Your task to perform on an android device: delete browsing data in the chrome app Image 0: 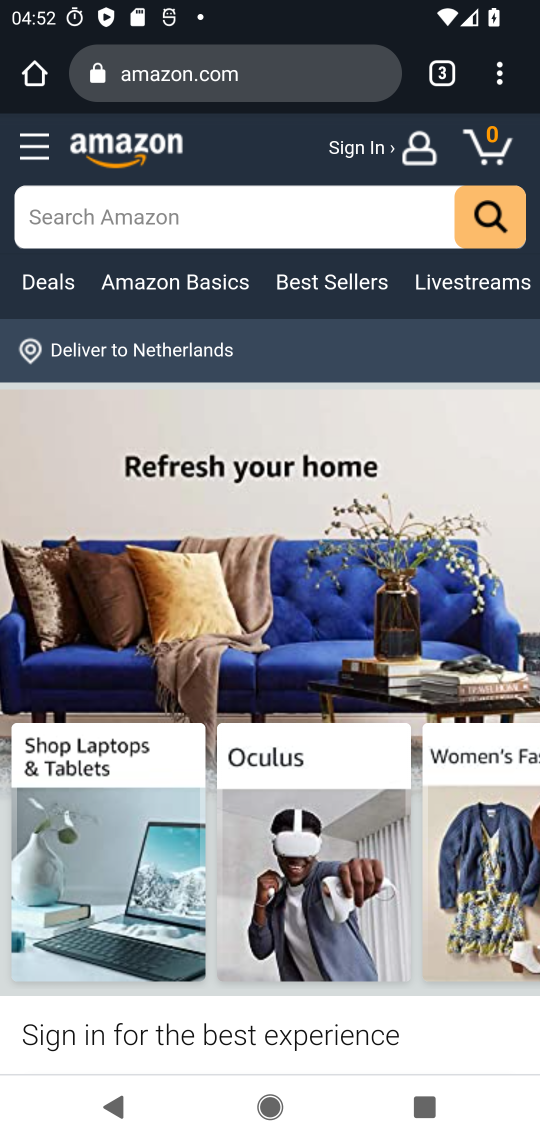
Step 0: press home button
Your task to perform on an android device: delete browsing data in the chrome app Image 1: 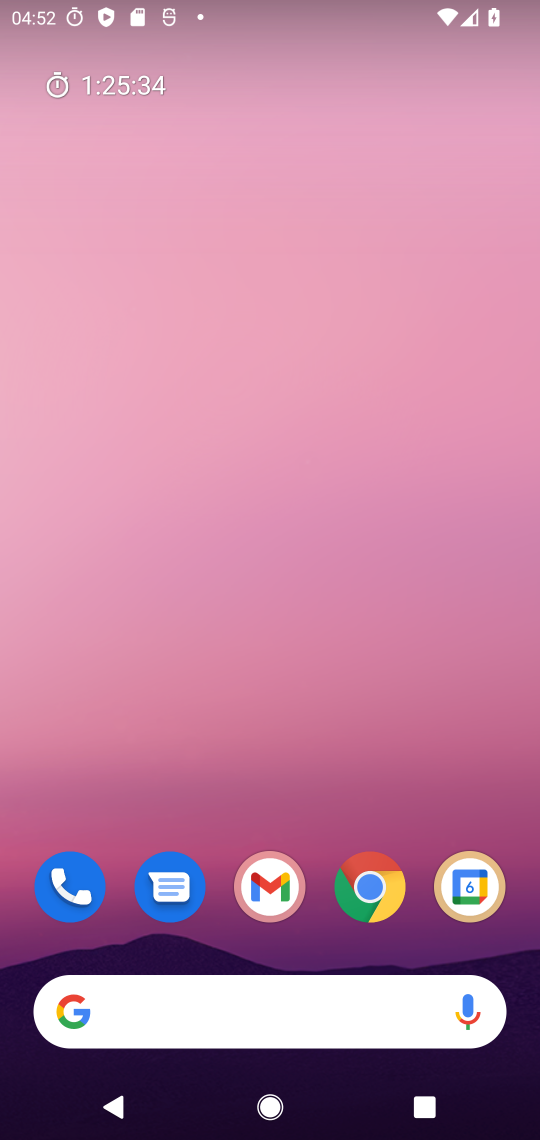
Step 1: drag from (437, 714) to (445, 260)
Your task to perform on an android device: delete browsing data in the chrome app Image 2: 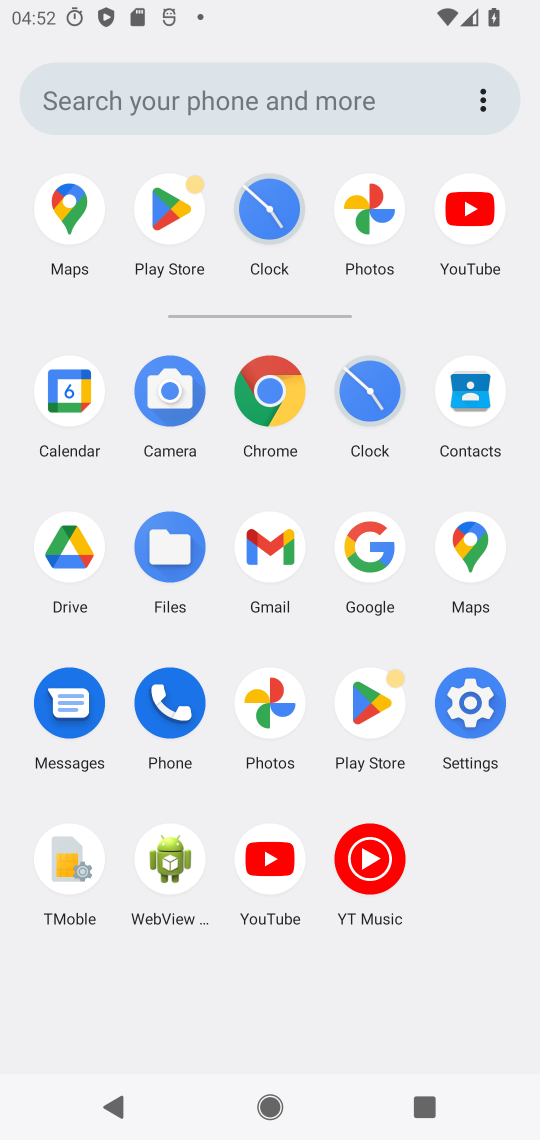
Step 2: click (272, 379)
Your task to perform on an android device: delete browsing data in the chrome app Image 3: 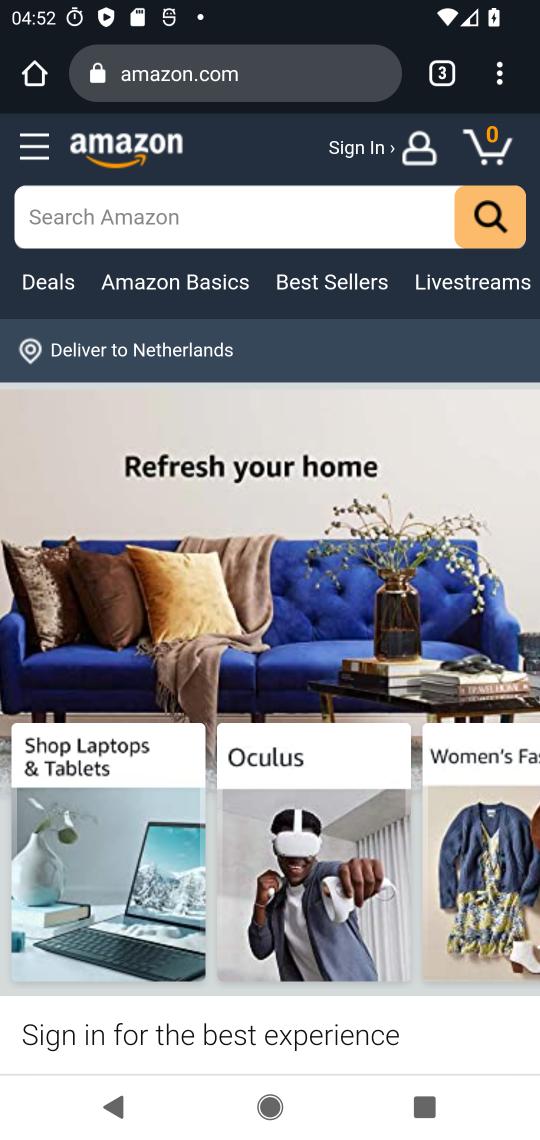
Step 3: click (499, 78)
Your task to perform on an android device: delete browsing data in the chrome app Image 4: 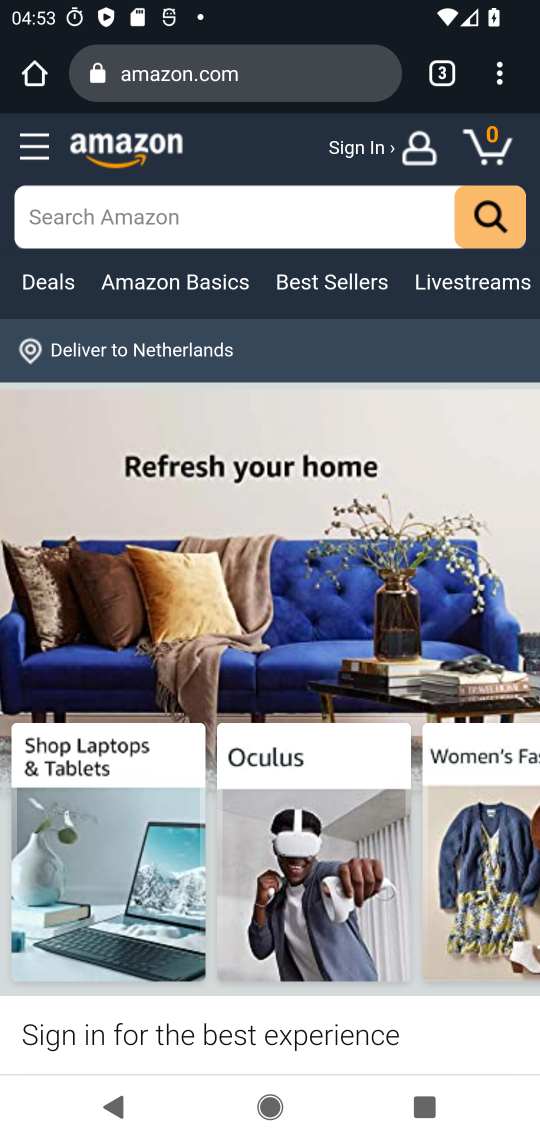
Step 4: click (503, 83)
Your task to perform on an android device: delete browsing data in the chrome app Image 5: 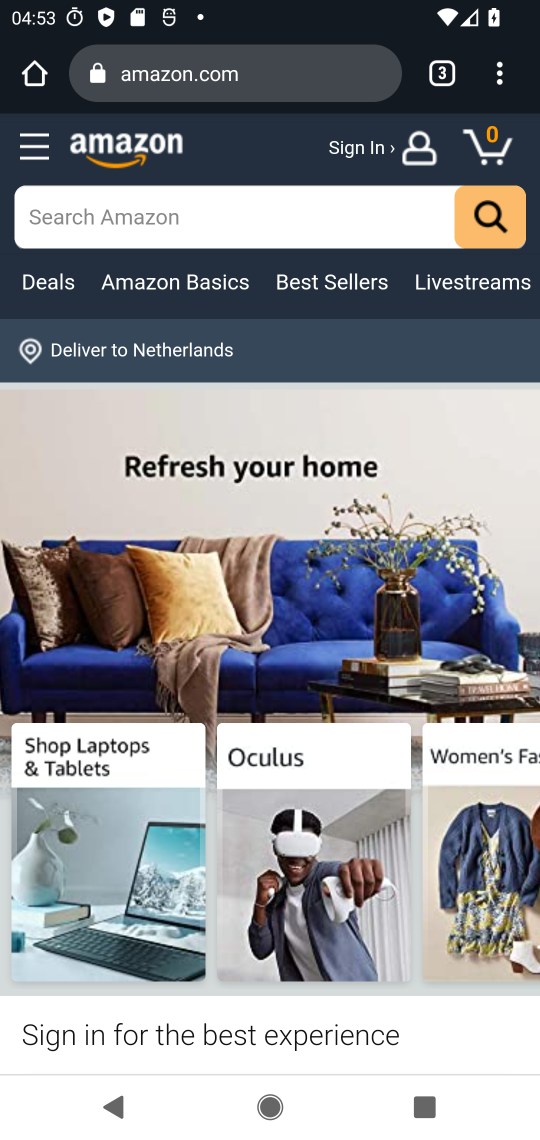
Step 5: click (495, 66)
Your task to perform on an android device: delete browsing data in the chrome app Image 6: 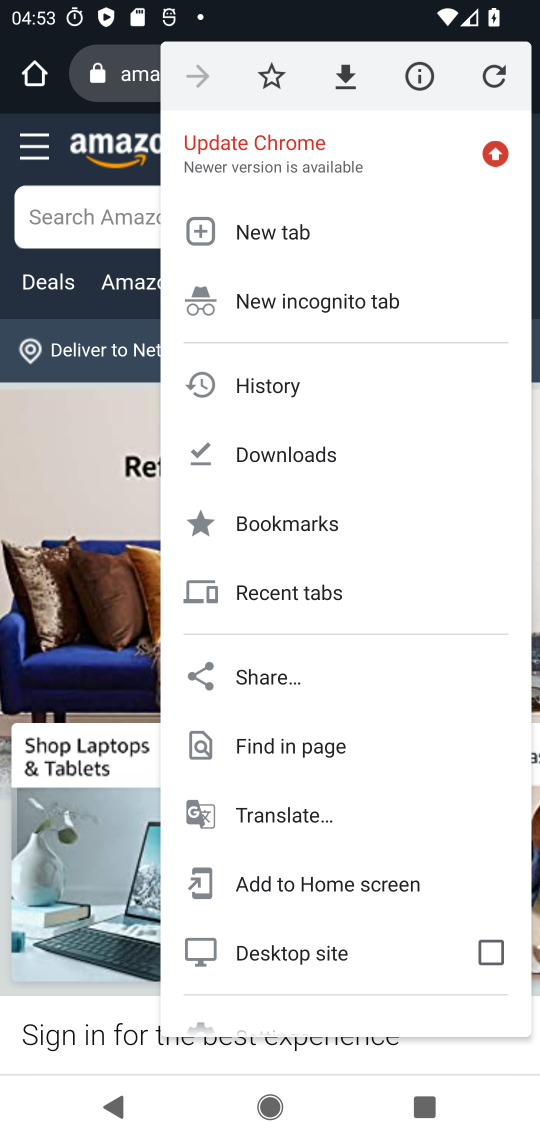
Step 6: drag from (428, 673) to (416, 496)
Your task to perform on an android device: delete browsing data in the chrome app Image 7: 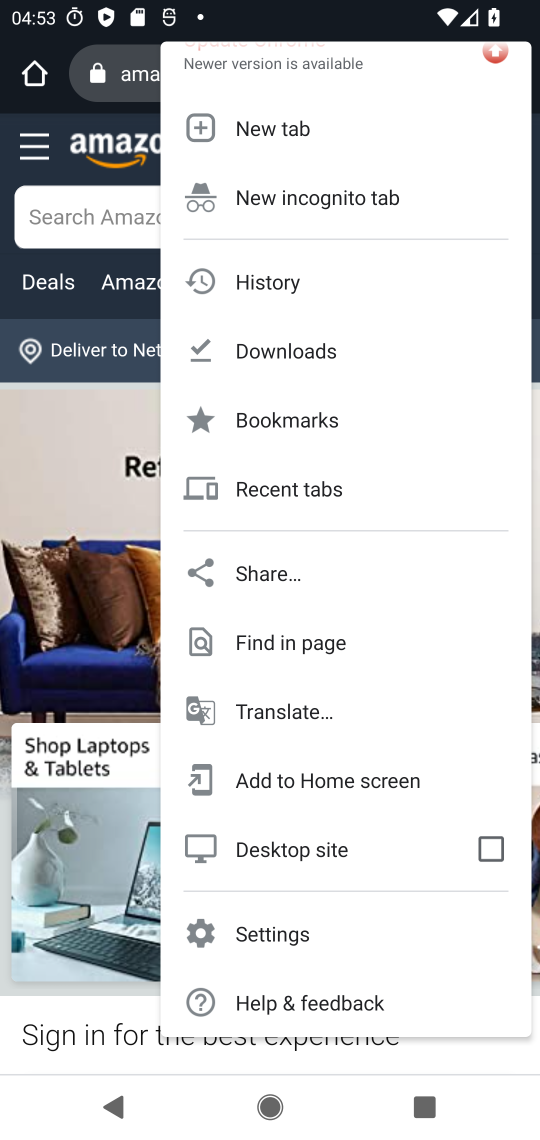
Step 7: drag from (419, 676) to (428, 533)
Your task to perform on an android device: delete browsing data in the chrome app Image 8: 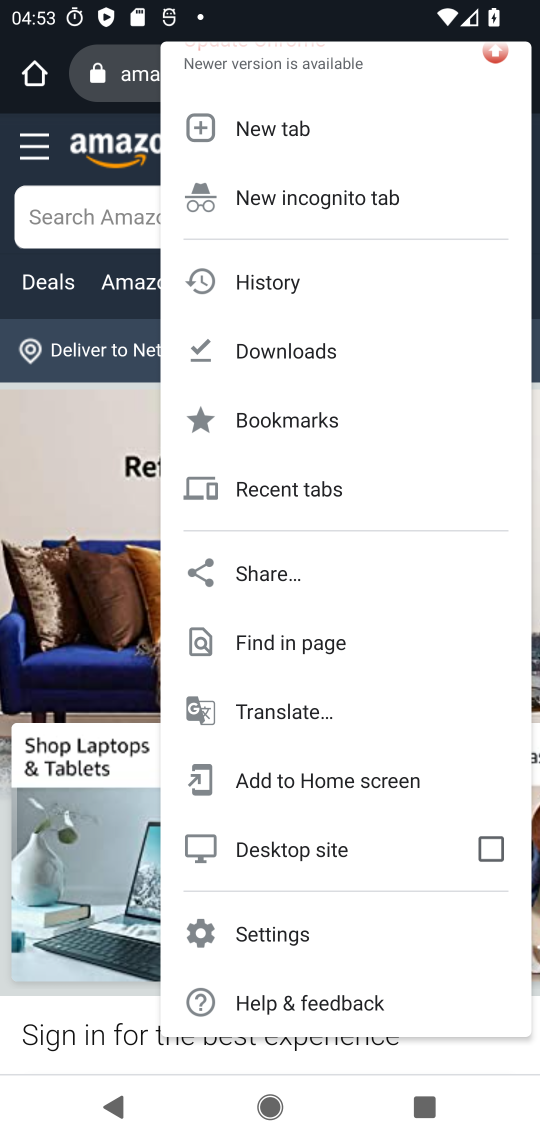
Step 8: click (312, 924)
Your task to perform on an android device: delete browsing data in the chrome app Image 9: 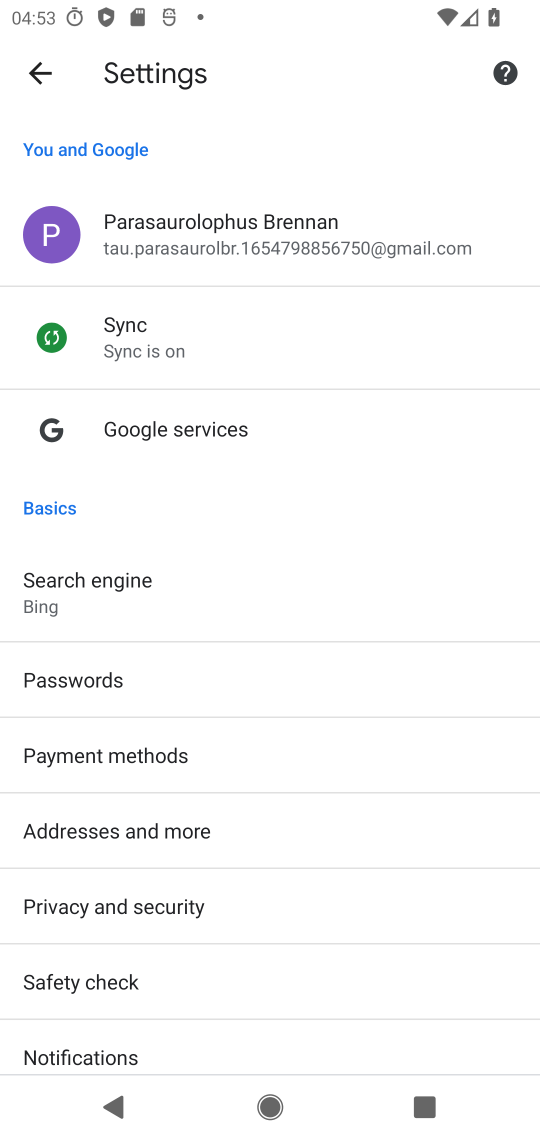
Step 9: drag from (356, 776) to (357, 584)
Your task to perform on an android device: delete browsing data in the chrome app Image 10: 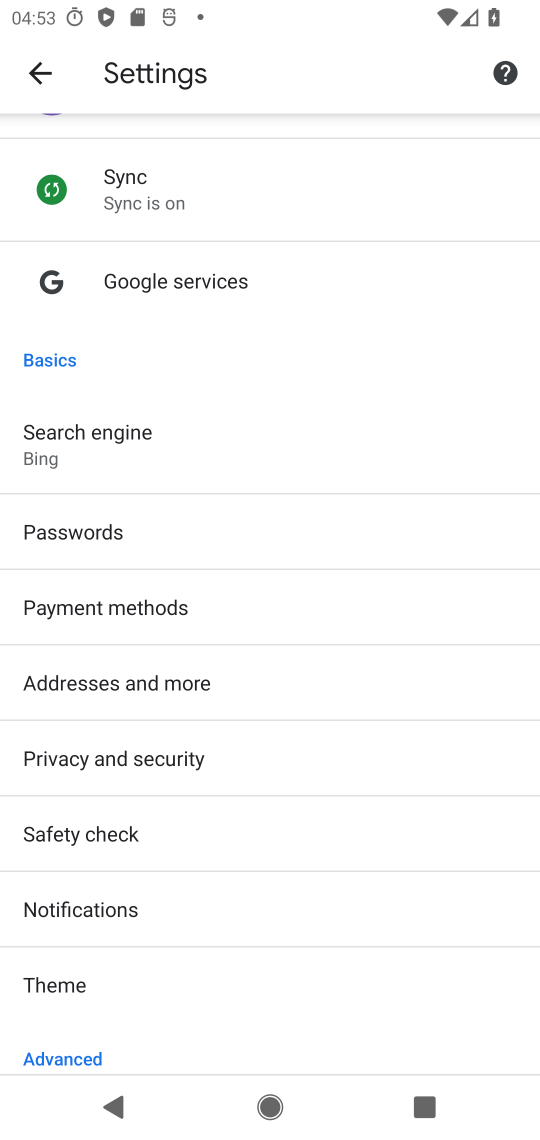
Step 10: drag from (428, 835) to (421, 574)
Your task to perform on an android device: delete browsing data in the chrome app Image 11: 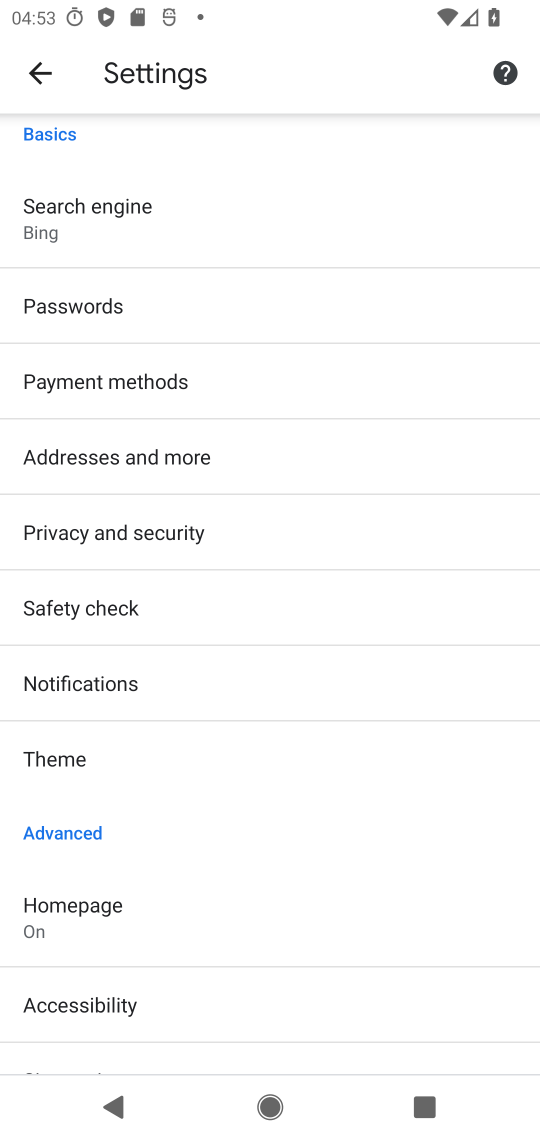
Step 11: drag from (437, 778) to (459, 555)
Your task to perform on an android device: delete browsing data in the chrome app Image 12: 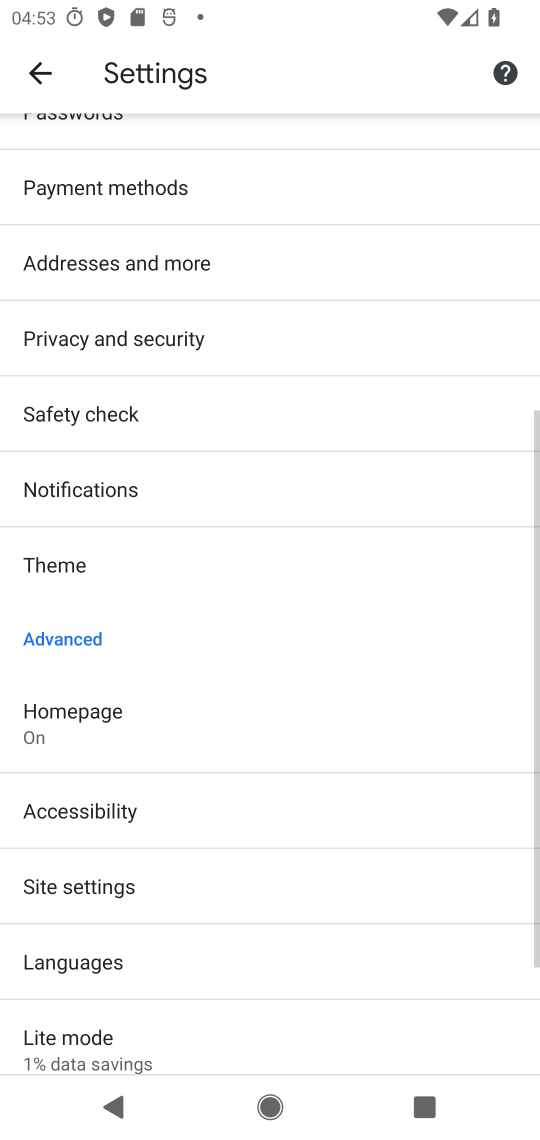
Step 12: drag from (451, 725) to (456, 498)
Your task to perform on an android device: delete browsing data in the chrome app Image 13: 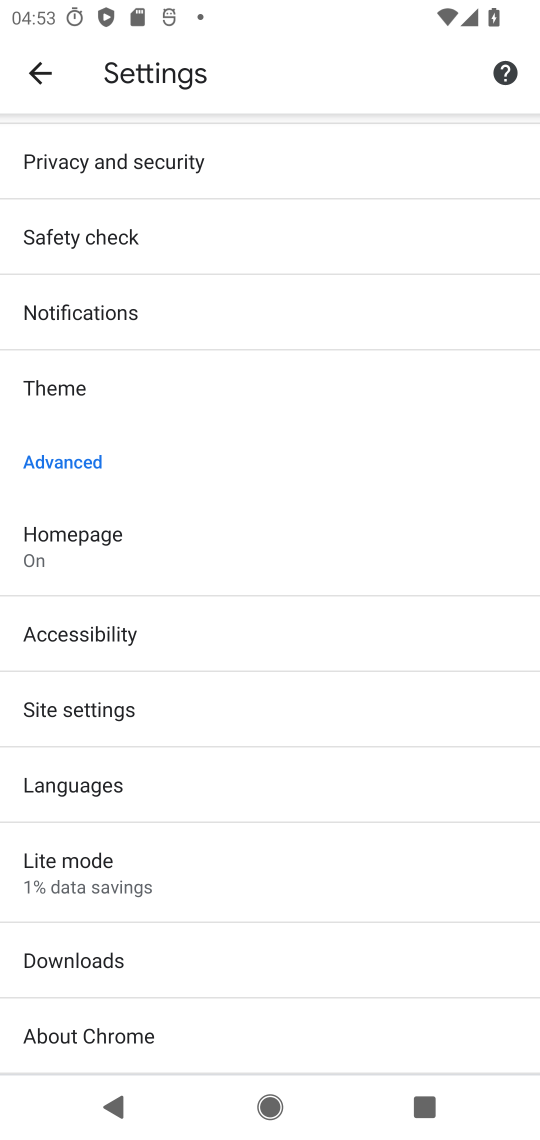
Step 13: drag from (447, 783) to (439, 471)
Your task to perform on an android device: delete browsing data in the chrome app Image 14: 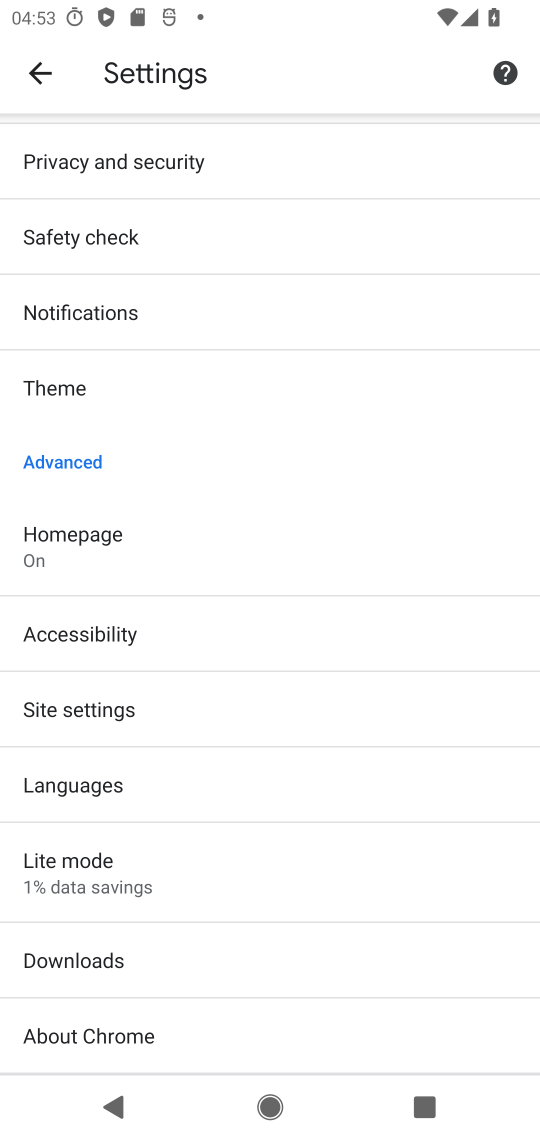
Step 14: drag from (409, 471) to (399, 643)
Your task to perform on an android device: delete browsing data in the chrome app Image 15: 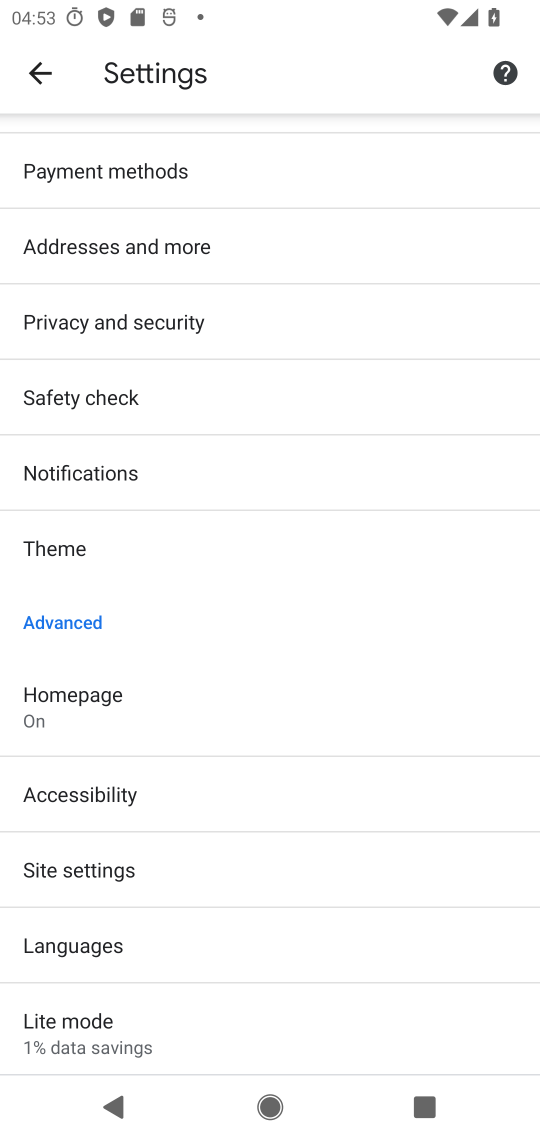
Step 15: click (333, 332)
Your task to perform on an android device: delete browsing data in the chrome app Image 16: 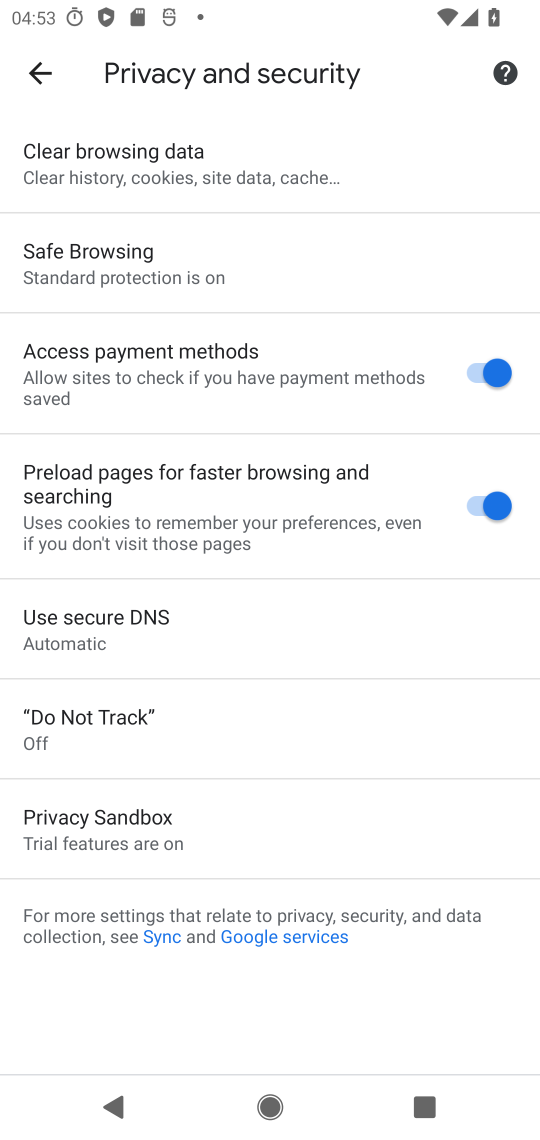
Step 16: click (251, 173)
Your task to perform on an android device: delete browsing data in the chrome app Image 17: 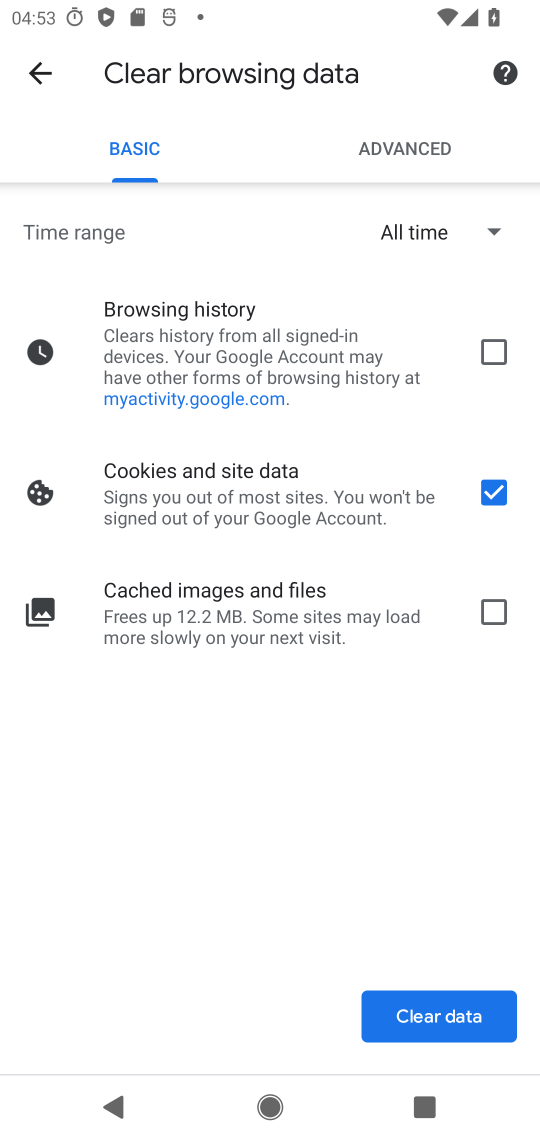
Step 17: click (413, 1017)
Your task to perform on an android device: delete browsing data in the chrome app Image 18: 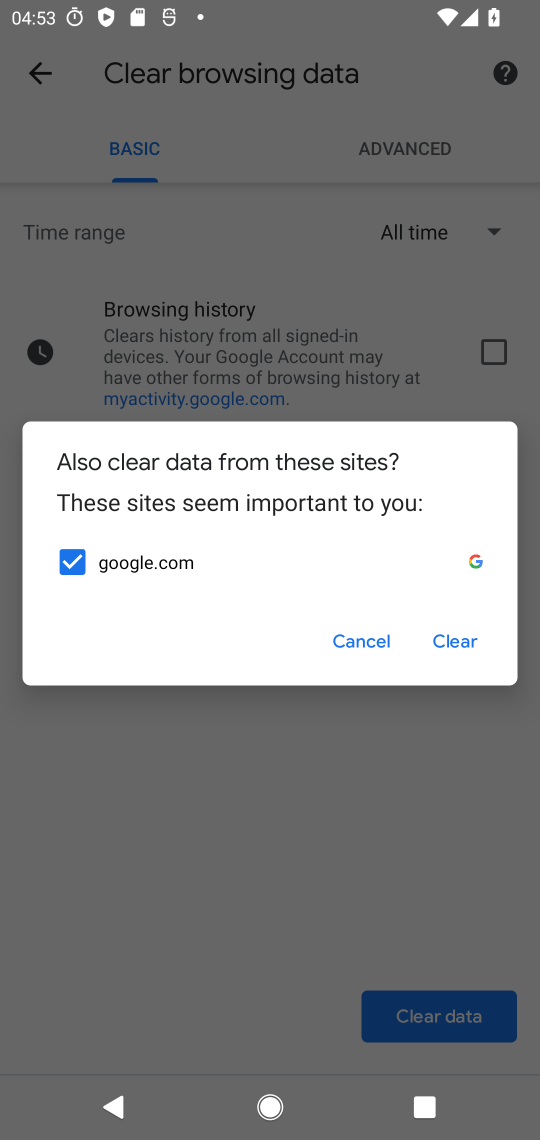
Step 18: click (449, 649)
Your task to perform on an android device: delete browsing data in the chrome app Image 19: 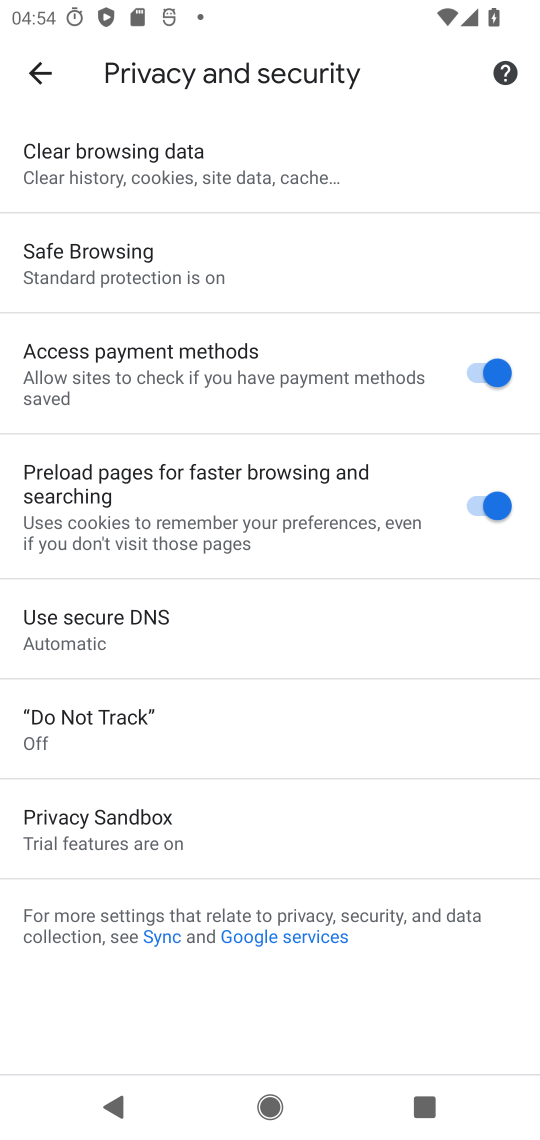
Step 19: task complete